Your task to perform on an android device: turn notification dots off Image 0: 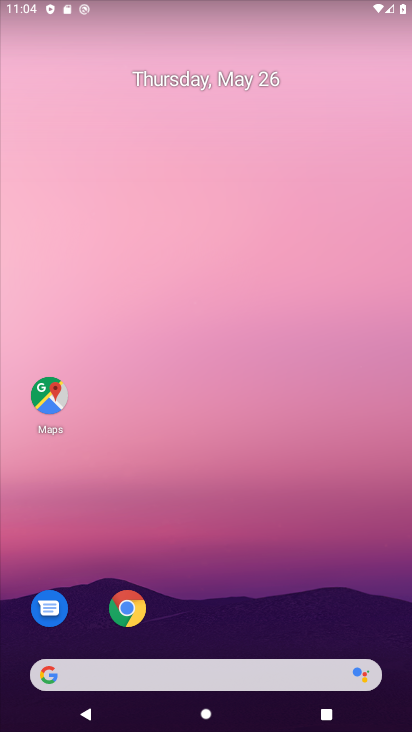
Step 0: drag from (276, 536) to (166, 59)
Your task to perform on an android device: turn notification dots off Image 1: 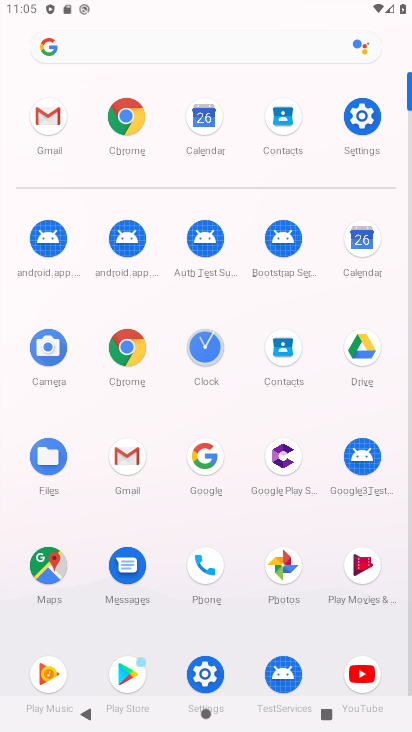
Step 1: click (362, 105)
Your task to perform on an android device: turn notification dots off Image 2: 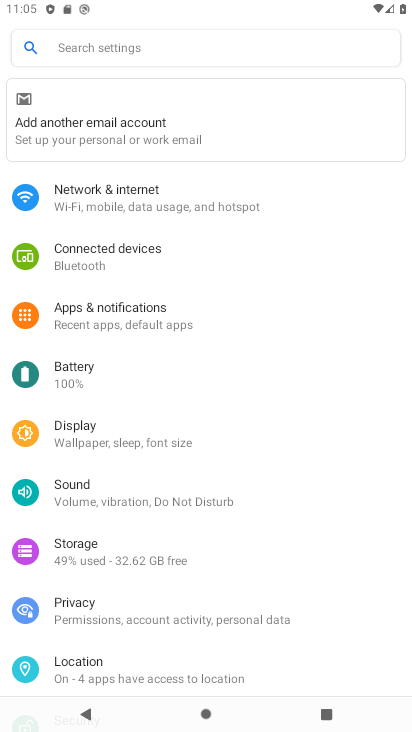
Step 2: click (147, 315)
Your task to perform on an android device: turn notification dots off Image 3: 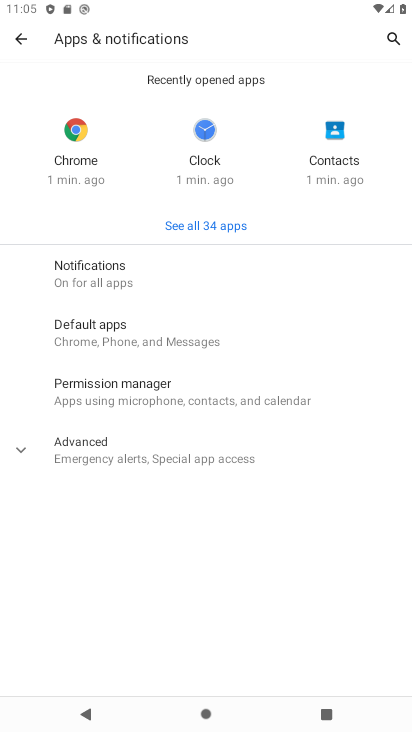
Step 3: click (137, 284)
Your task to perform on an android device: turn notification dots off Image 4: 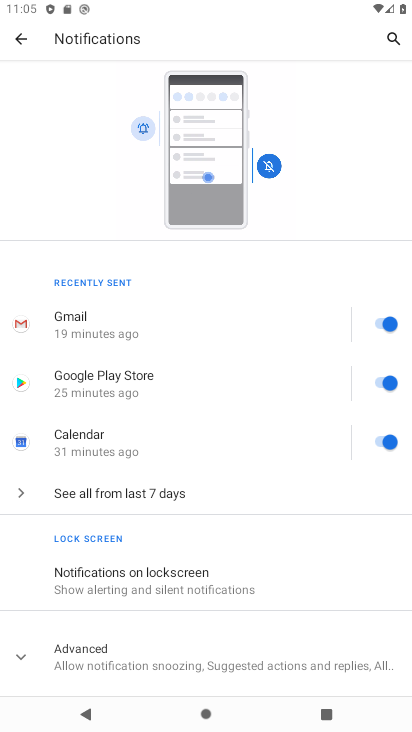
Step 4: drag from (251, 587) to (272, 31)
Your task to perform on an android device: turn notification dots off Image 5: 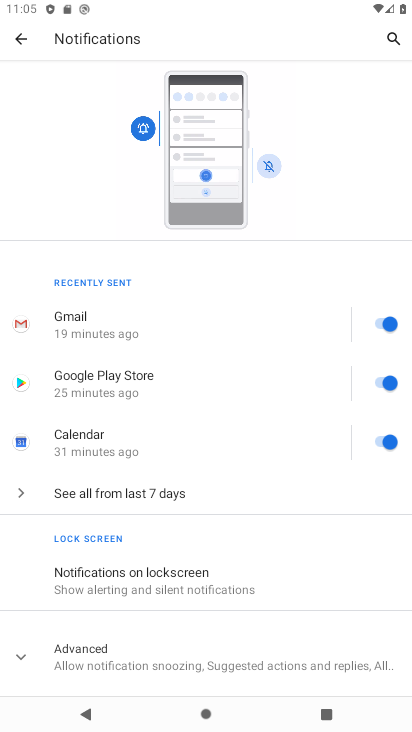
Step 5: click (130, 660)
Your task to perform on an android device: turn notification dots off Image 6: 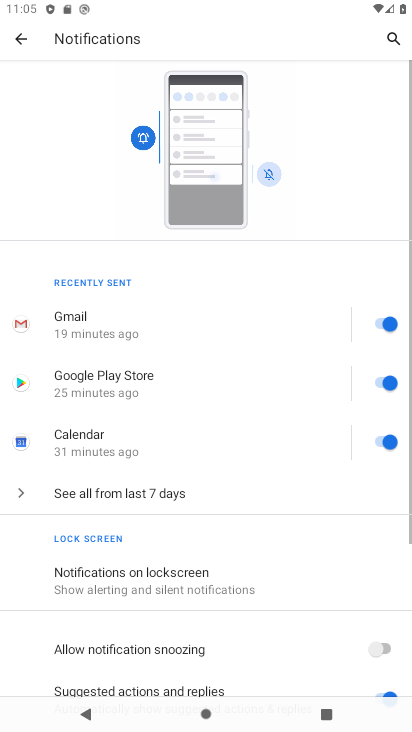
Step 6: drag from (235, 648) to (286, 158)
Your task to perform on an android device: turn notification dots off Image 7: 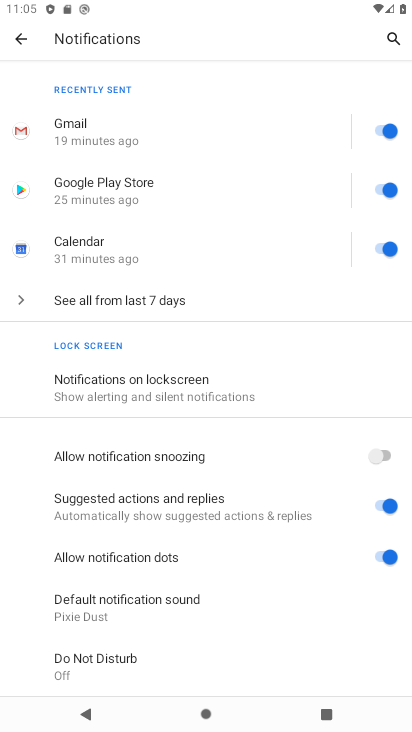
Step 7: click (372, 550)
Your task to perform on an android device: turn notification dots off Image 8: 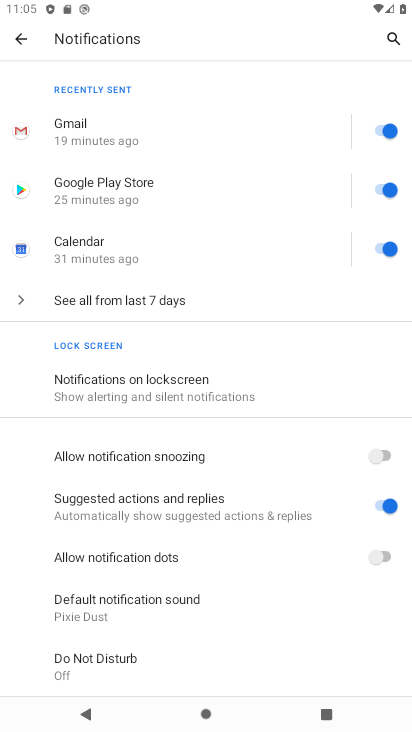
Step 8: task complete